Your task to perform on an android device: open chrome and create a bookmark for the current page Image 0: 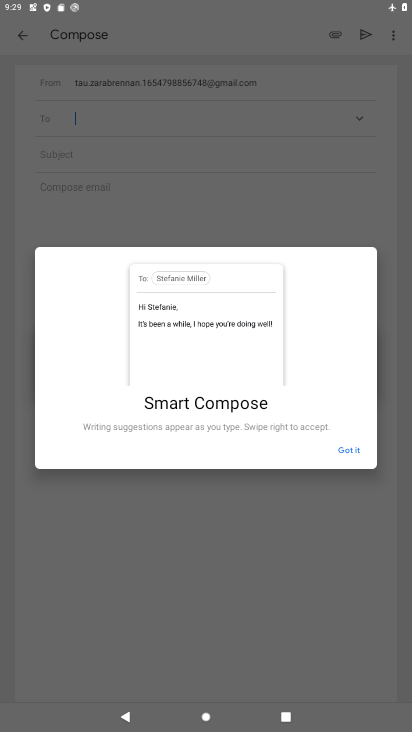
Step 0: press home button
Your task to perform on an android device: open chrome and create a bookmark for the current page Image 1: 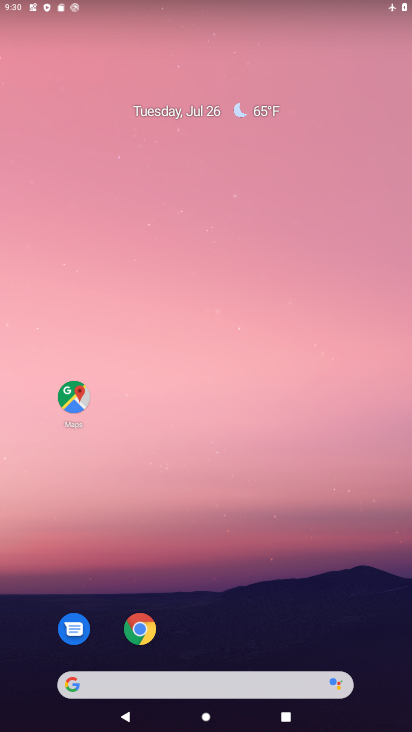
Step 1: click (137, 632)
Your task to perform on an android device: open chrome and create a bookmark for the current page Image 2: 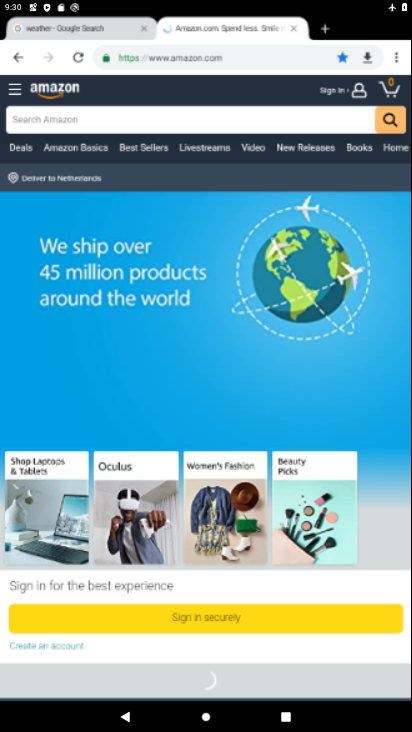
Step 2: drag from (400, 58) to (186, 121)
Your task to perform on an android device: open chrome and create a bookmark for the current page Image 3: 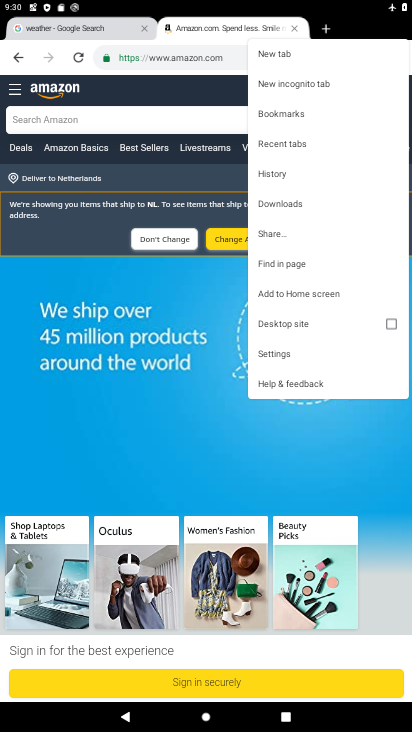
Step 3: click (186, 121)
Your task to perform on an android device: open chrome and create a bookmark for the current page Image 4: 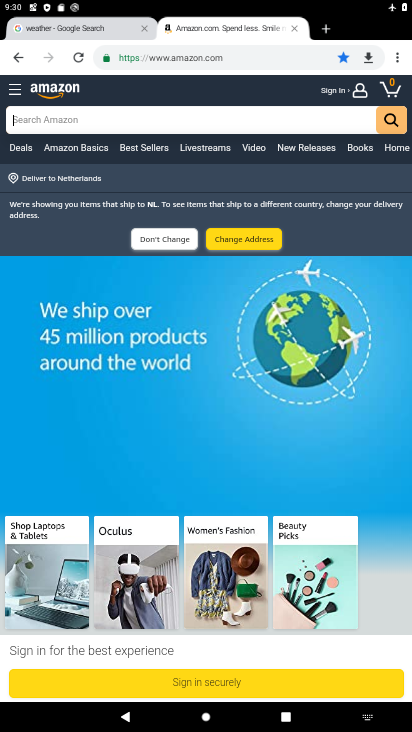
Step 4: task complete